Your task to perform on an android device: What's the weather going to be this weekend? Image 0: 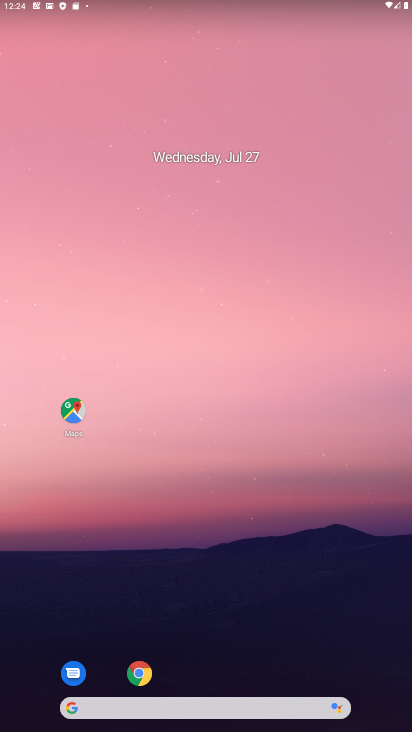
Step 0: click (235, 499)
Your task to perform on an android device: What's the weather going to be this weekend? Image 1: 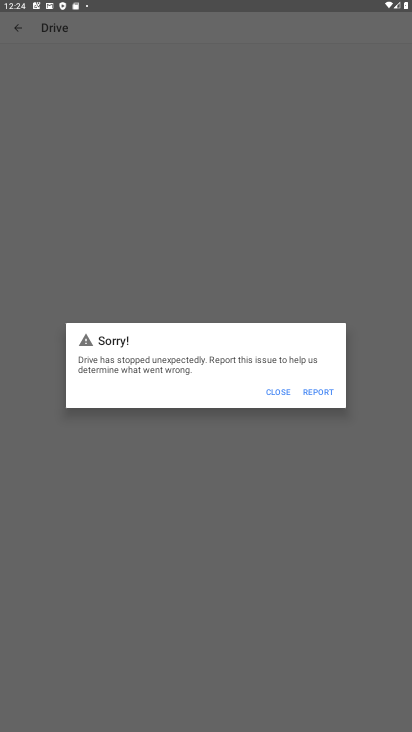
Step 1: press home button
Your task to perform on an android device: What's the weather going to be this weekend? Image 2: 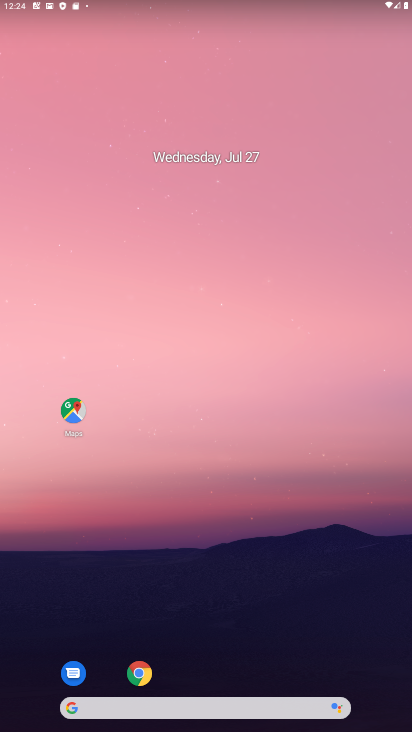
Step 2: click (143, 675)
Your task to perform on an android device: What's the weather going to be this weekend? Image 3: 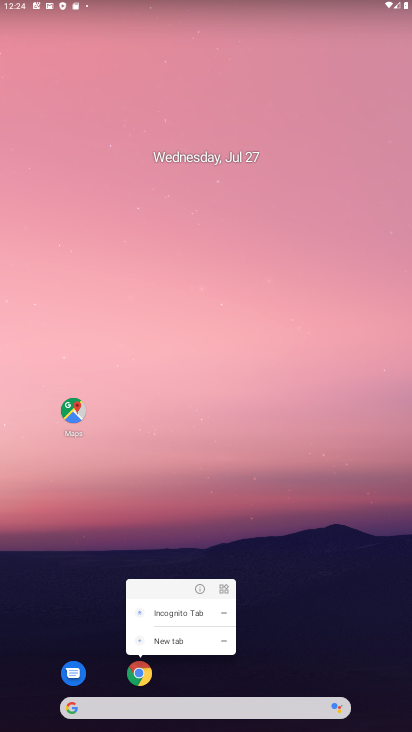
Step 3: click (143, 675)
Your task to perform on an android device: What's the weather going to be this weekend? Image 4: 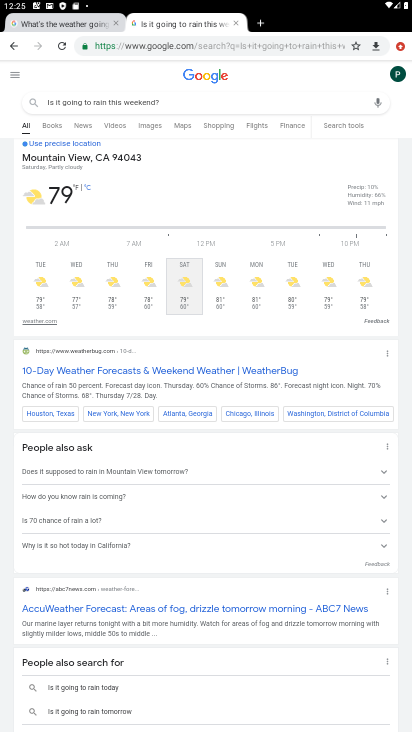
Step 4: click (258, 25)
Your task to perform on an android device: What's the weather going to be this weekend? Image 5: 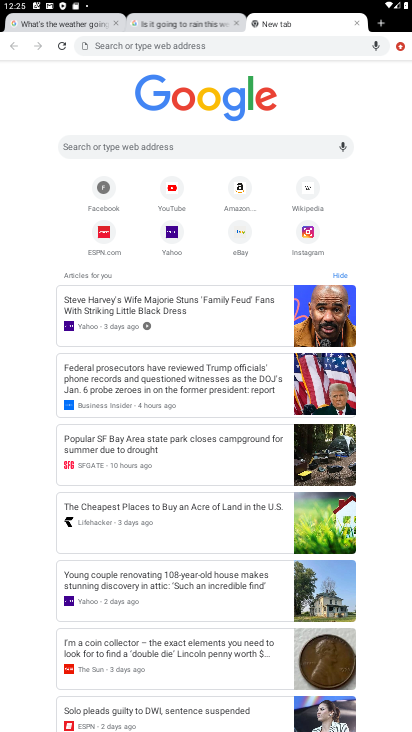
Step 5: click (140, 142)
Your task to perform on an android device: What's the weather going to be this weekend? Image 6: 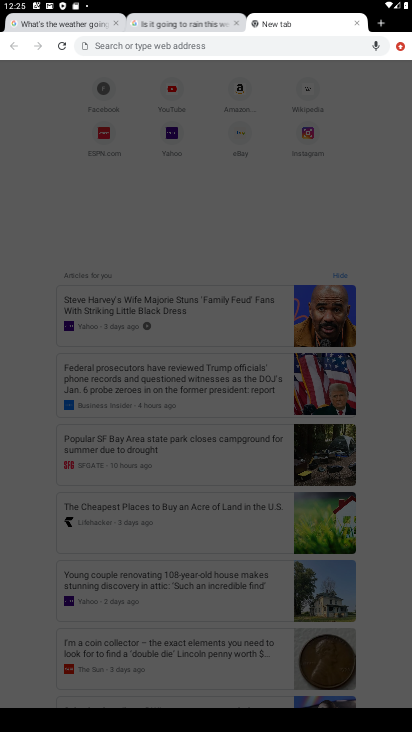
Step 6: type "What's the weather going to be this weekend? "
Your task to perform on an android device: What's the weather going to be this weekend? Image 7: 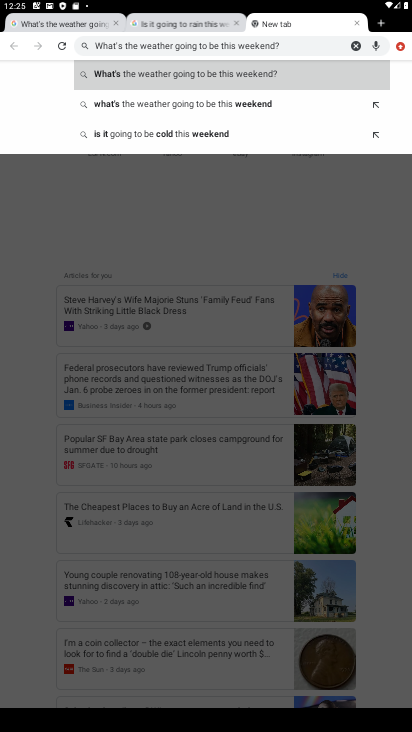
Step 7: click (202, 73)
Your task to perform on an android device: What's the weather going to be this weekend? Image 8: 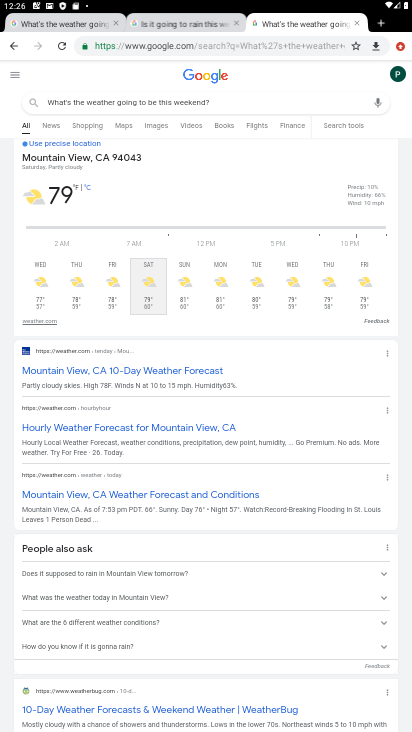
Step 8: task complete